Your task to perform on an android device: open a bookmark in the chrome app Image 0: 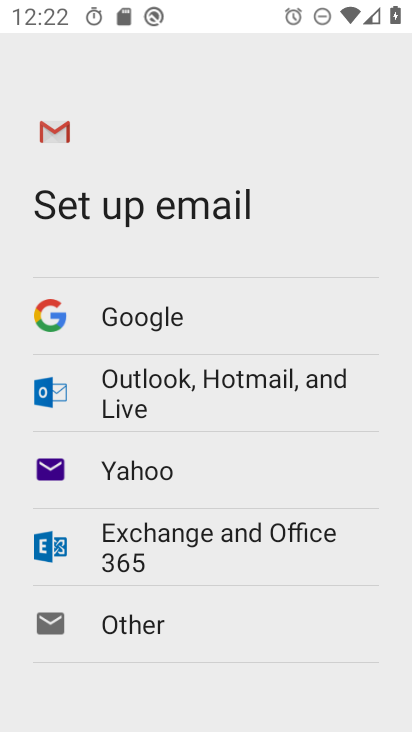
Step 0: press back button
Your task to perform on an android device: open a bookmark in the chrome app Image 1: 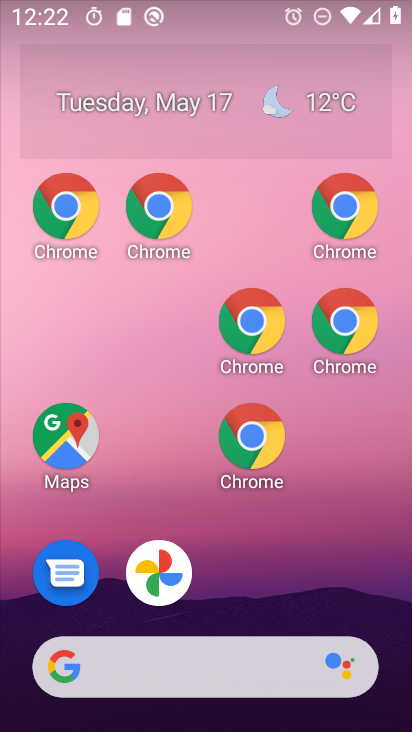
Step 1: drag from (248, 610) to (146, 80)
Your task to perform on an android device: open a bookmark in the chrome app Image 2: 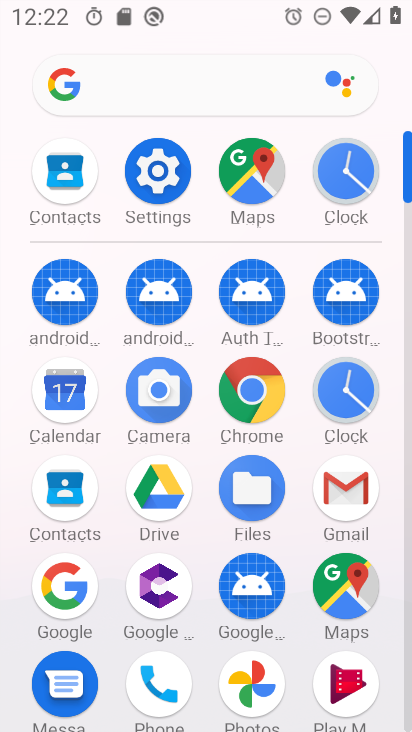
Step 2: click (275, 391)
Your task to perform on an android device: open a bookmark in the chrome app Image 3: 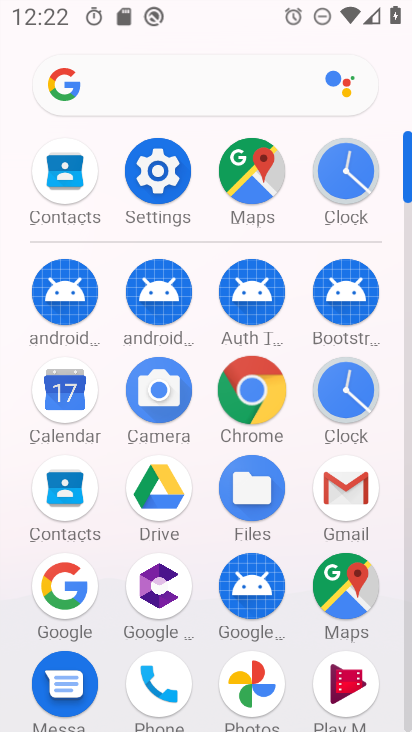
Step 3: click (277, 391)
Your task to perform on an android device: open a bookmark in the chrome app Image 4: 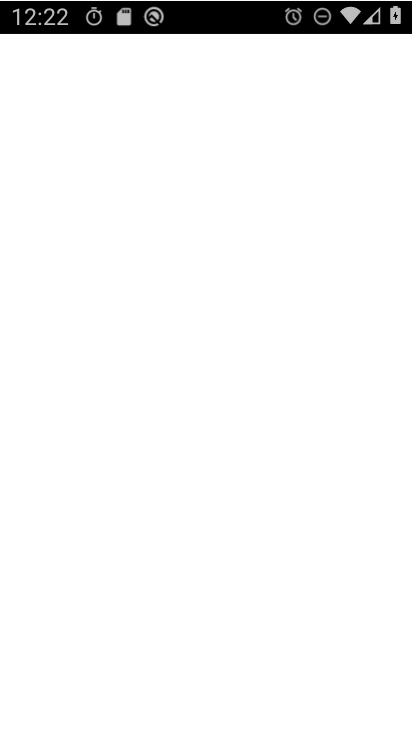
Step 4: click (279, 389)
Your task to perform on an android device: open a bookmark in the chrome app Image 5: 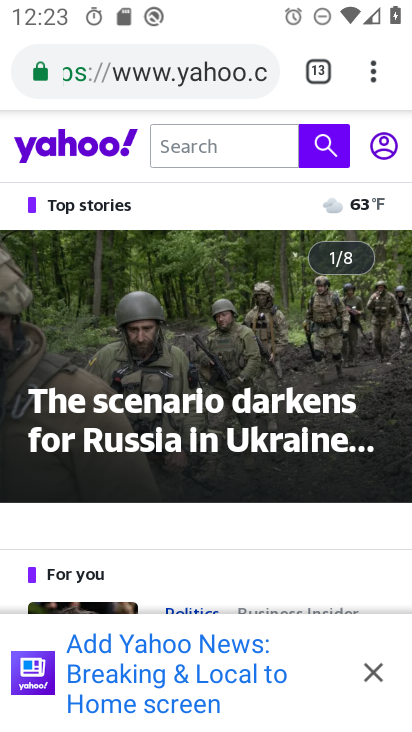
Step 5: drag from (368, 77) to (187, 263)
Your task to perform on an android device: open a bookmark in the chrome app Image 6: 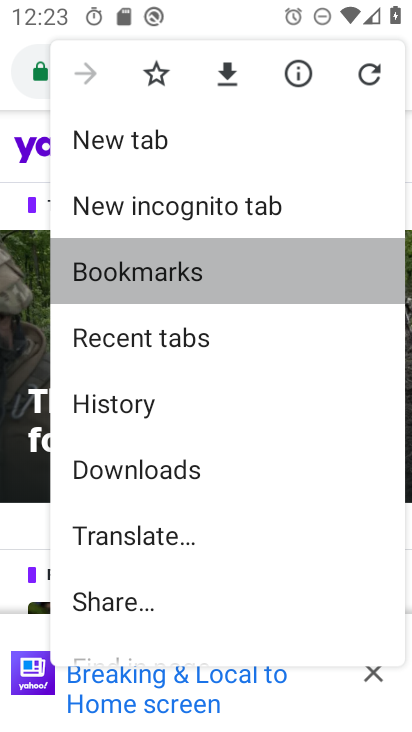
Step 6: click (187, 263)
Your task to perform on an android device: open a bookmark in the chrome app Image 7: 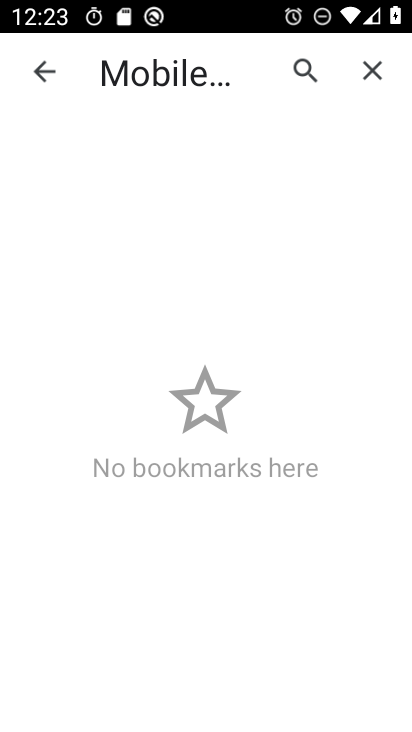
Step 7: task complete